Your task to perform on an android device: Open settings Image 0: 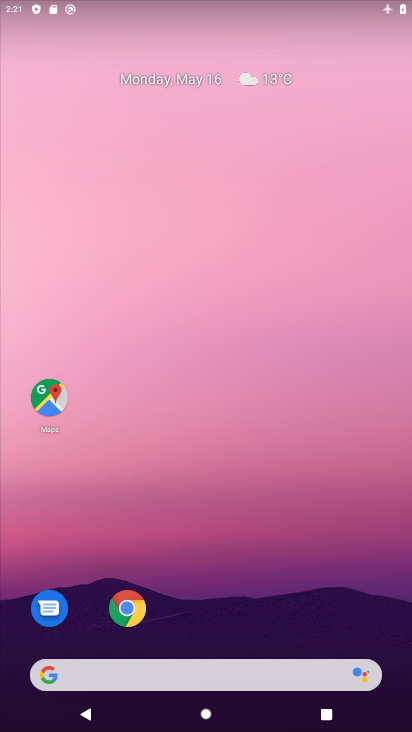
Step 0: drag from (197, 604) to (268, 18)
Your task to perform on an android device: Open settings Image 1: 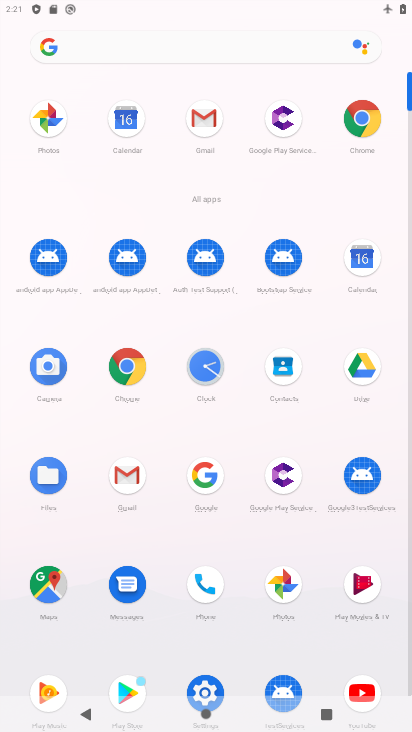
Step 1: click (202, 690)
Your task to perform on an android device: Open settings Image 2: 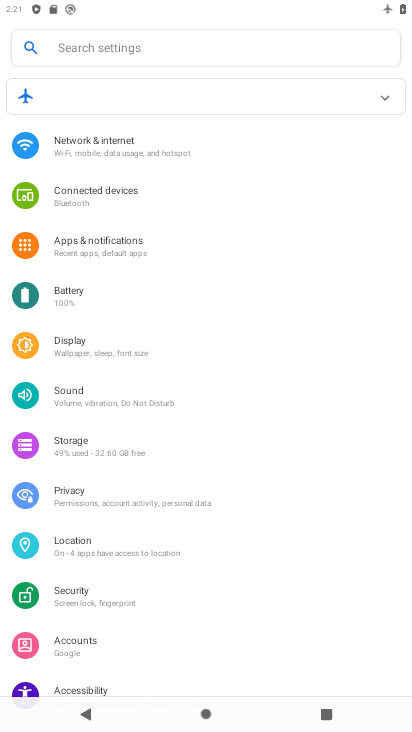
Step 2: task complete